Your task to perform on an android device: turn on priority inbox in the gmail app Image 0: 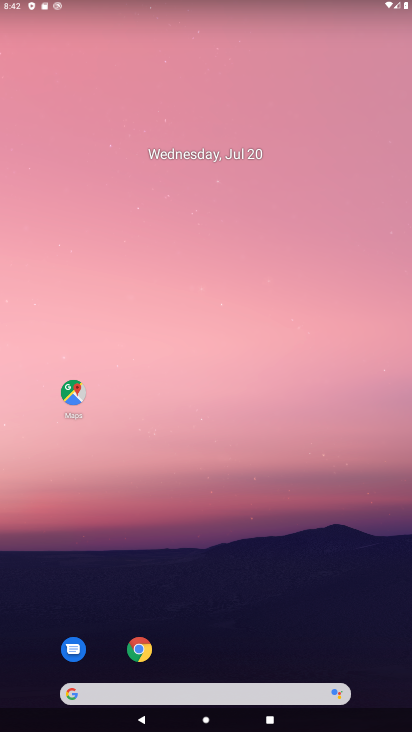
Step 0: drag from (228, 677) to (218, 183)
Your task to perform on an android device: turn on priority inbox in the gmail app Image 1: 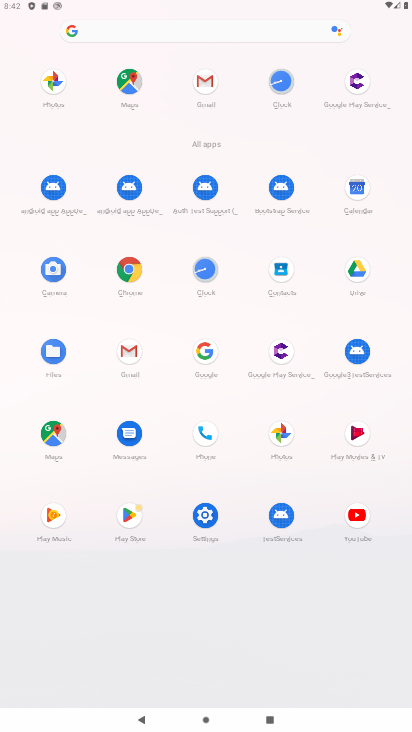
Step 1: click (209, 81)
Your task to perform on an android device: turn on priority inbox in the gmail app Image 2: 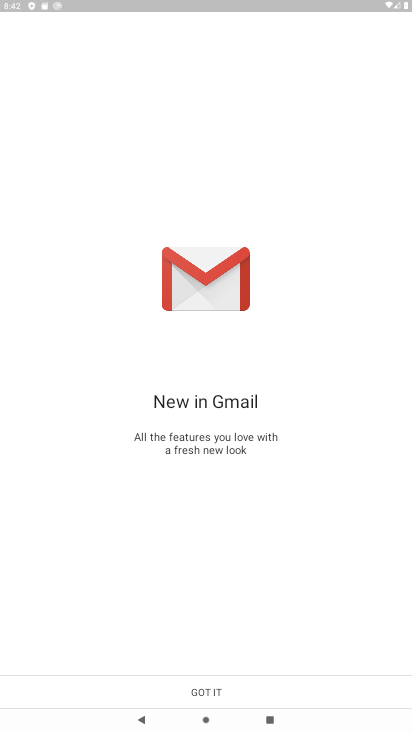
Step 2: click (197, 695)
Your task to perform on an android device: turn on priority inbox in the gmail app Image 3: 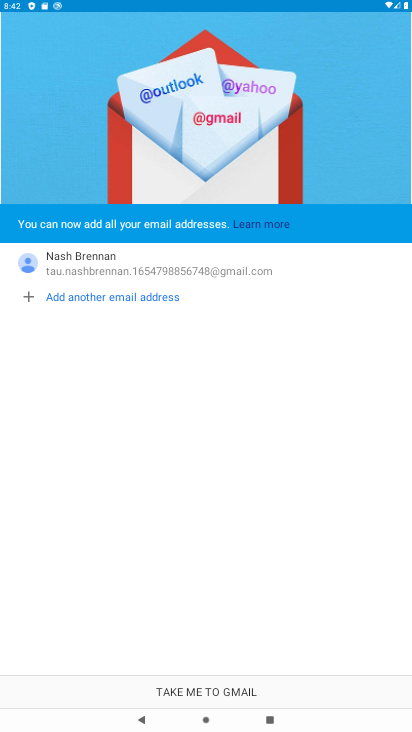
Step 3: click (193, 689)
Your task to perform on an android device: turn on priority inbox in the gmail app Image 4: 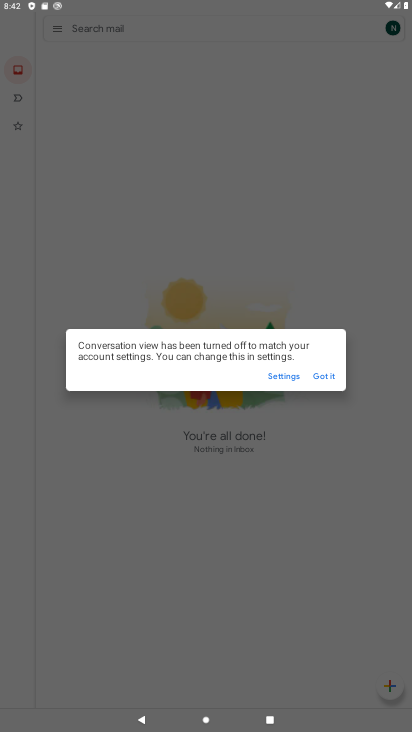
Step 4: click (323, 376)
Your task to perform on an android device: turn on priority inbox in the gmail app Image 5: 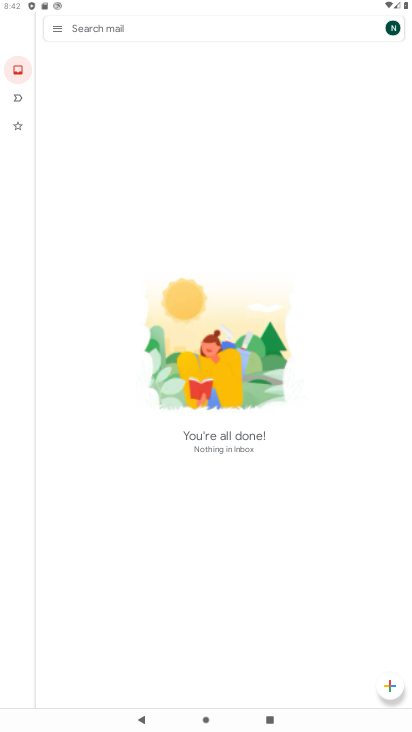
Step 5: click (63, 30)
Your task to perform on an android device: turn on priority inbox in the gmail app Image 6: 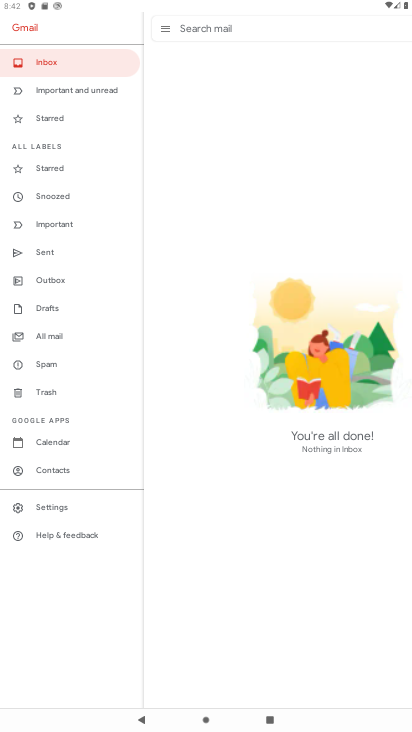
Step 6: click (52, 507)
Your task to perform on an android device: turn on priority inbox in the gmail app Image 7: 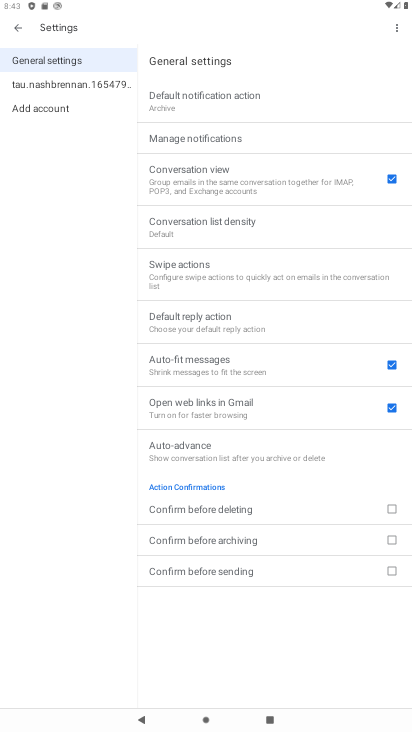
Step 7: click (88, 82)
Your task to perform on an android device: turn on priority inbox in the gmail app Image 8: 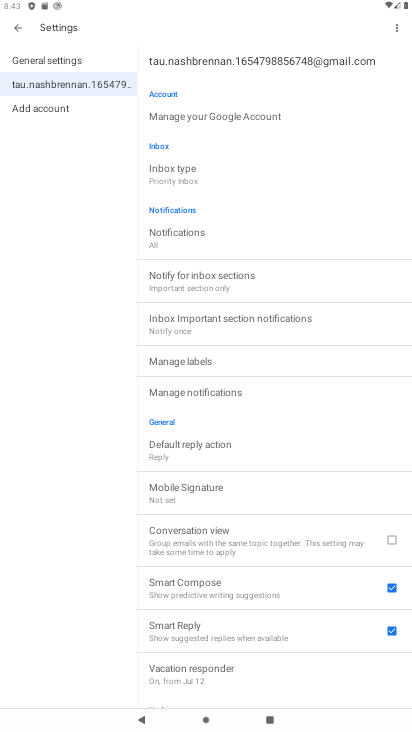
Step 8: task complete